Your task to perform on an android device: delete browsing data in the chrome app Image 0: 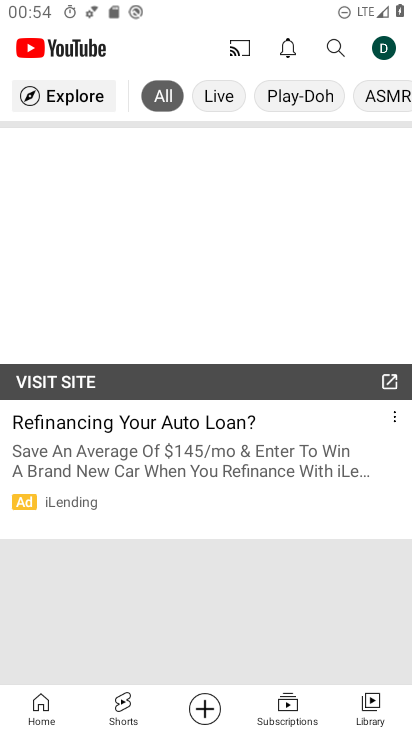
Step 0: press home button
Your task to perform on an android device: delete browsing data in the chrome app Image 1: 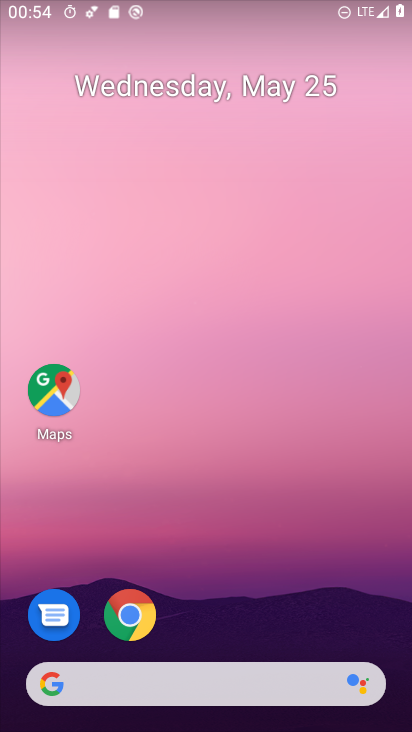
Step 1: drag from (263, 699) to (369, 96)
Your task to perform on an android device: delete browsing data in the chrome app Image 2: 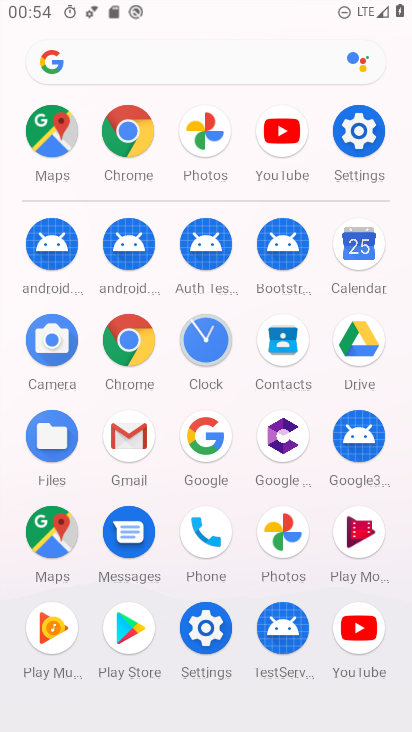
Step 2: click (131, 125)
Your task to perform on an android device: delete browsing data in the chrome app Image 3: 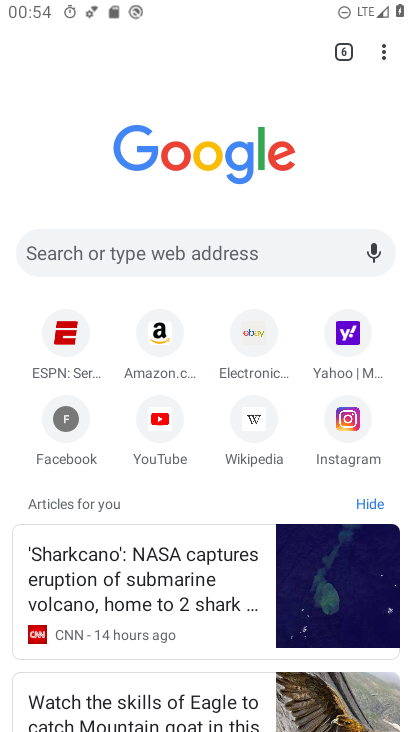
Step 3: click (391, 51)
Your task to perform on an android device: delete browsing data in the chrome app Image 4: 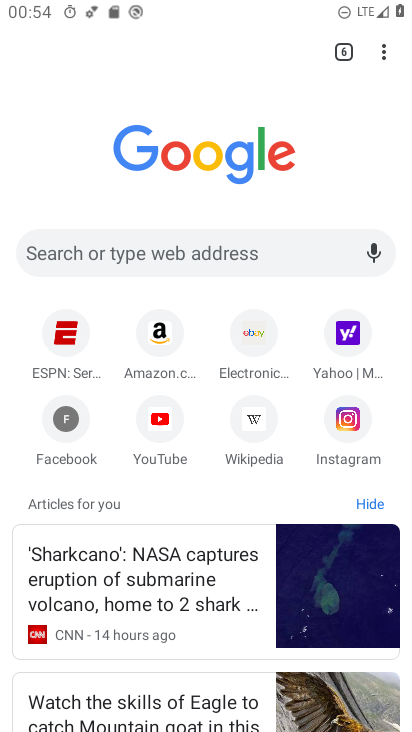
Step 4: click (383, 63)
Your task to perform on an android device: delete browsing data in the chrome app Image 5: 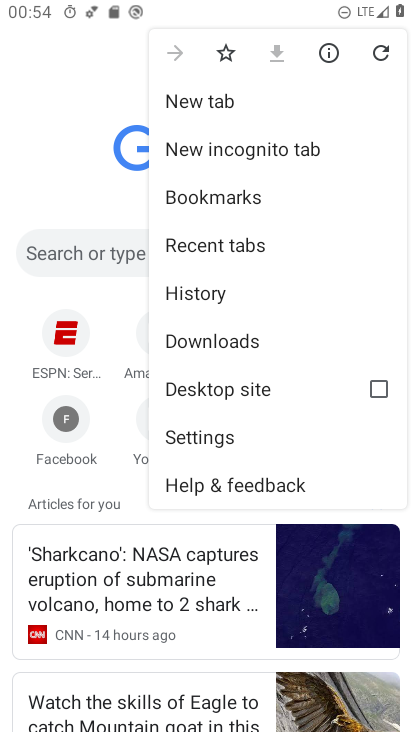
Step 5: click (205, 433)
Your task to perform on an android device: delete browsing data in the chrome app Image 6: 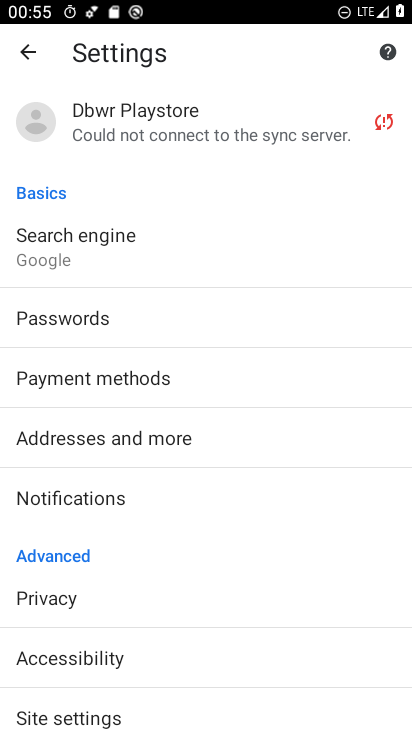
Step 6: click (63, 599)
Your task to perform on an android device: delete browsing data in the chrome app Image 7: 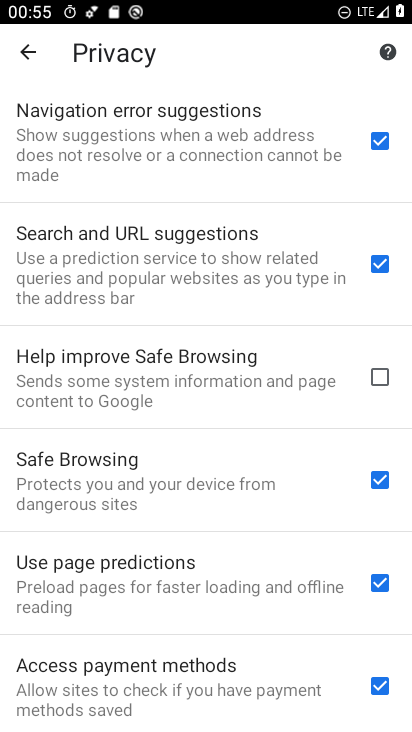
Step 7: drag from (117, 626) to (250, 366)
Your task to perform on an android device: delete browsing data in the chrome app Image 8: 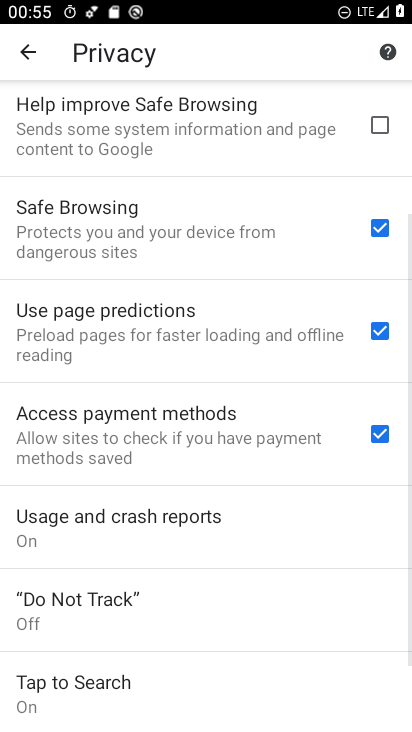
Step 8: drag from (190, 601) to (293, 241)
Your task to perform on an android device: delete browsing data in the chrome app Image 9: 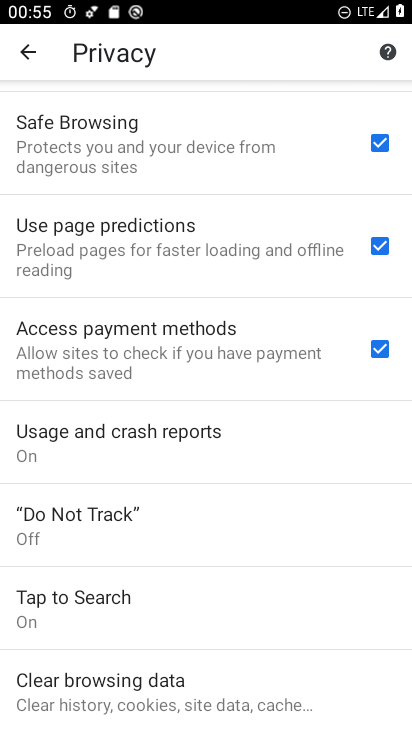
Step 9: click (197, 687)
Your task to perform on an android device: delete browsing data in the chrome app Image 10: 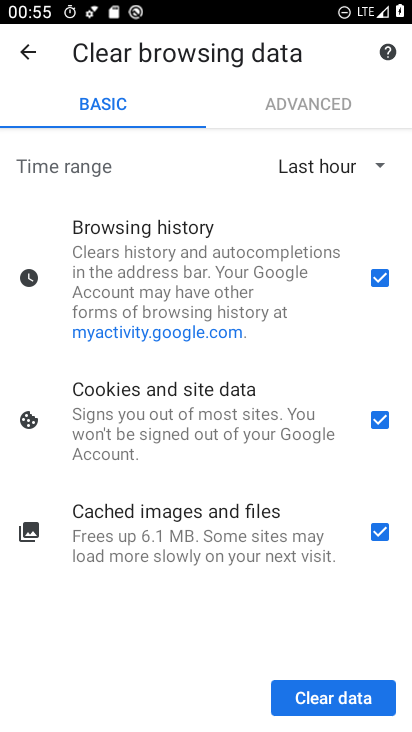
Step 10: click (353, 701)
Your task to perform on an android device: delete browsing data in the chrome app Image 11: 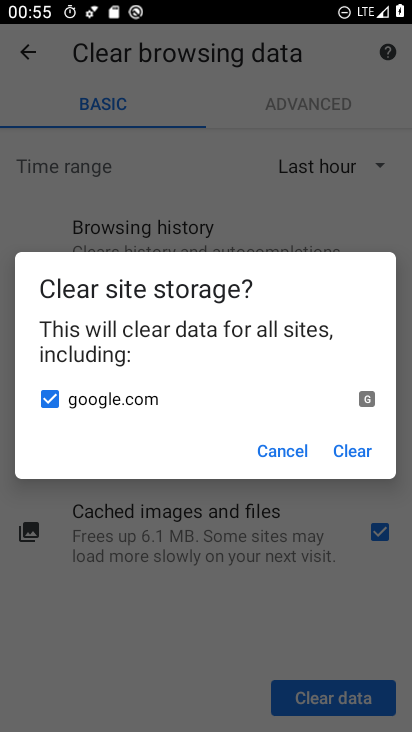
Step 11: task complete